Your task to perform on an android device: Open notification settings Image 0: 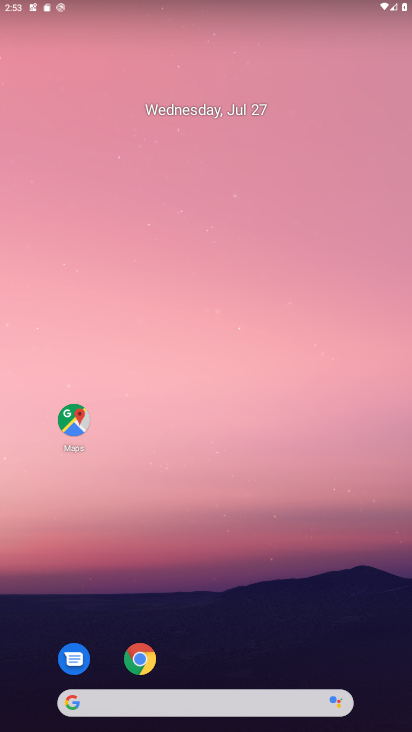
Step 0: drag from (225, 527) to (259, 25)
Your task to perform on an android device: Open notification settings Image 1: 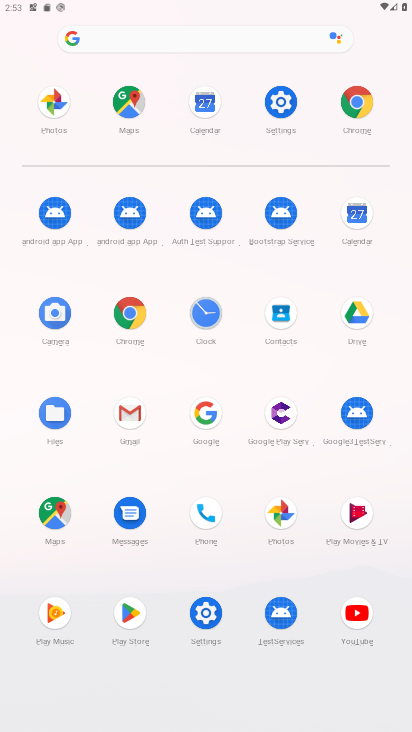
Step 1: click (287, 103)
Your task to perform on an android device: Open notification settings Image 2: 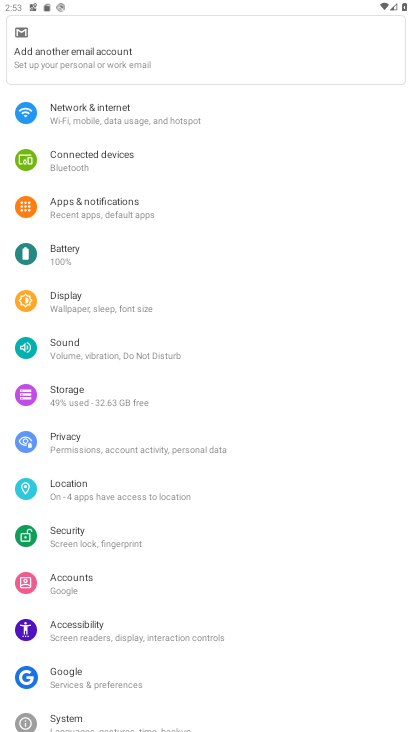
Step 2: click (136, 205)
Your task to perform on an android device: Open notification settings Image 3: 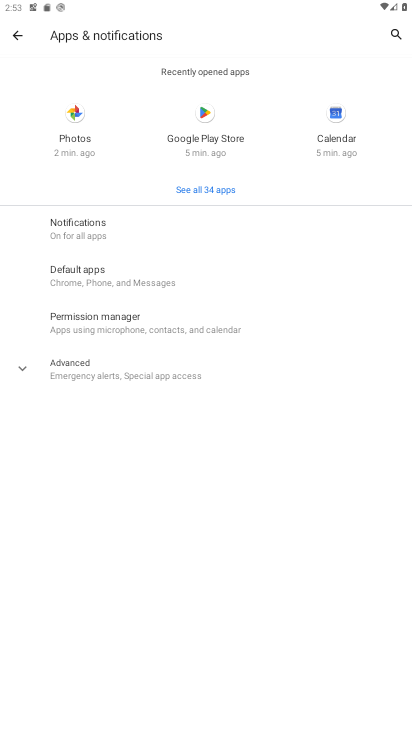
Step 3: click (103, 223)
Your task to perform on an android device: Open notification settings Image 4: 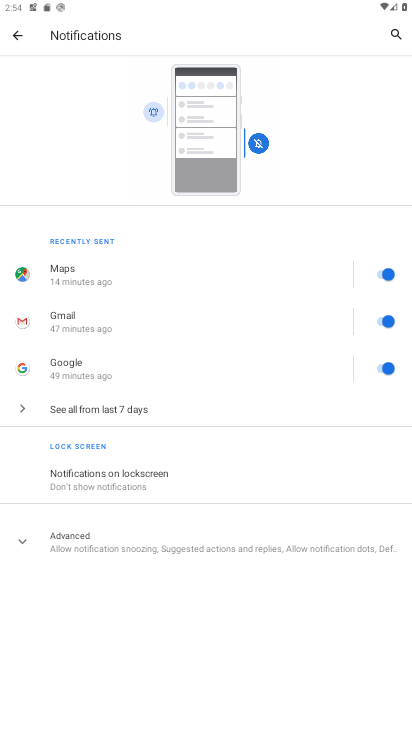
Step 4: task complete